Your task to perform on an android device: toggle notification dots Image 0: 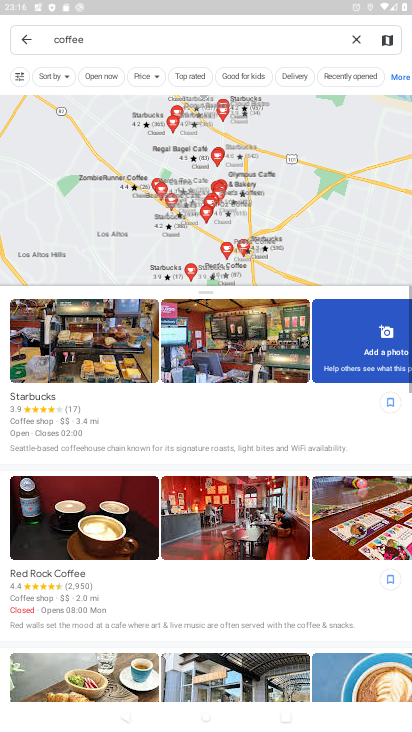
Step 0: drag from (212, 645) to (306, 238)
Your task to perform on an android device: toggle notification dots Image 1: 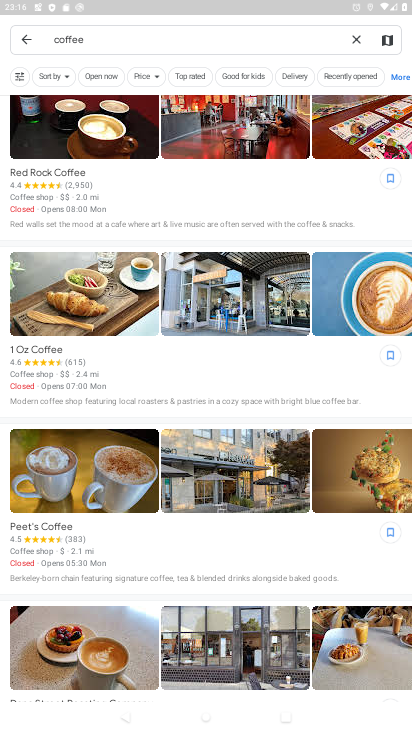
Step 1: press home button
Your task to perform on an android device: toggle notification dots Image 2: 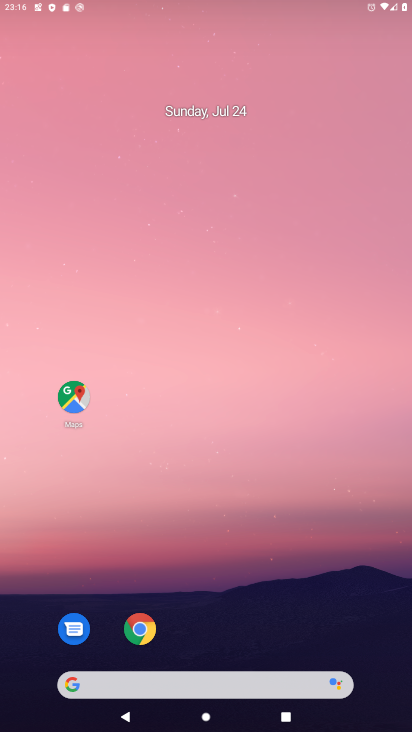
Step 2: drag from (242, 647) to (364, 136)
Your task to perform on an android device: toggle notification dots Image 3: 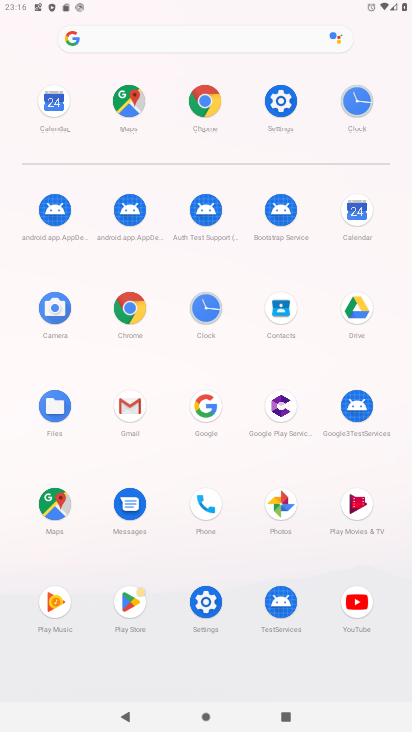
Step 3: click (278, 98)
Your task to perform on an android device: toggle notification dots Image 4: 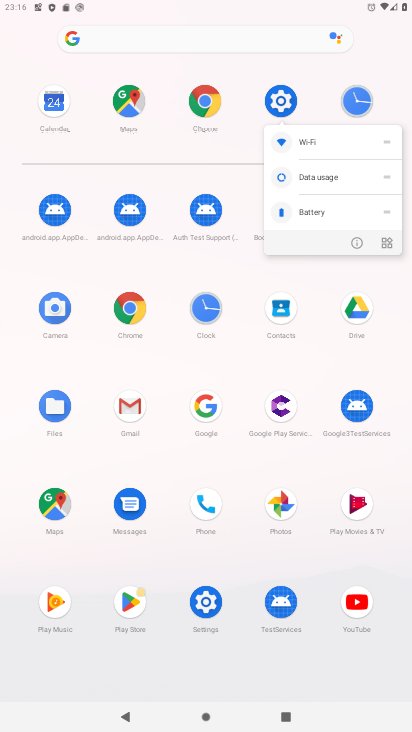
Step 4: click (352, 236)
Your task to perform on an android device: toggle notification dots Image 5: 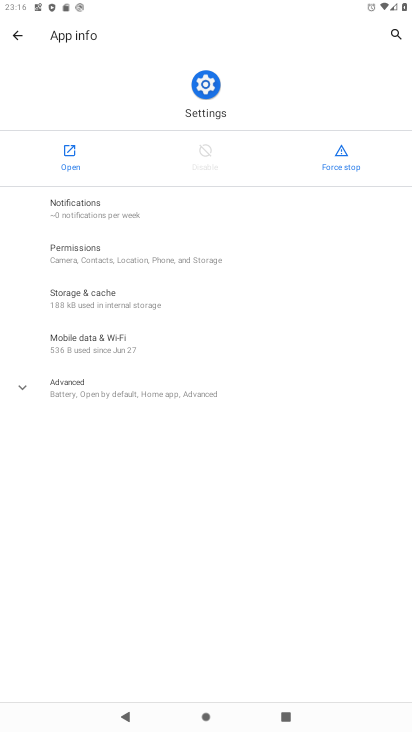
Step 5: click (68, 164)
Your task to perform on an android device: toggle notification dots Image 6: 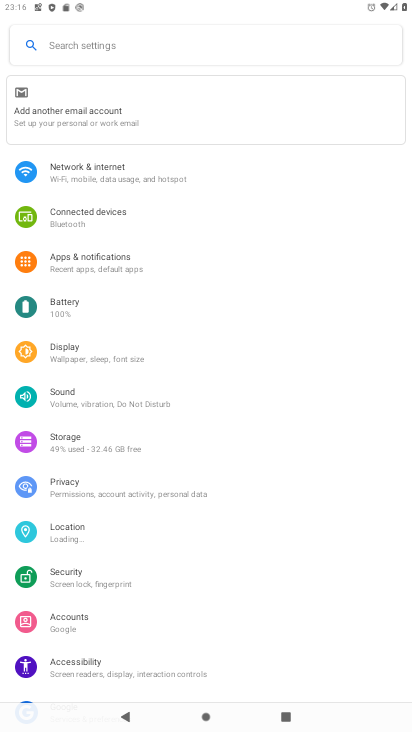
Step 6: click (128, 269)
Your task to perform on an android device: toggle notification dots Image 7: 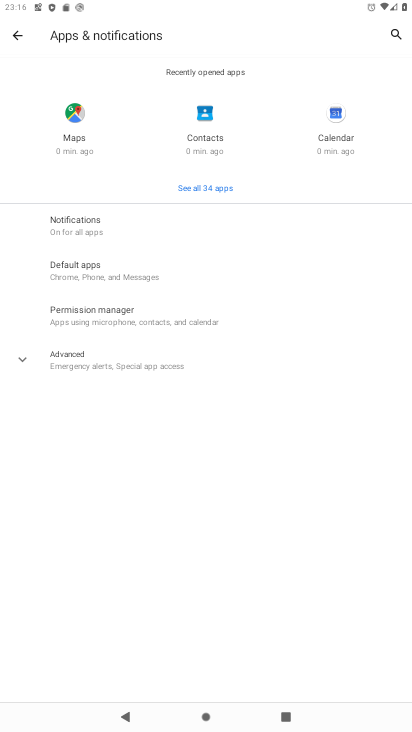
Step 7: click (105, 231)
Your task to perform on an android device: toggle notification dots Image 8: 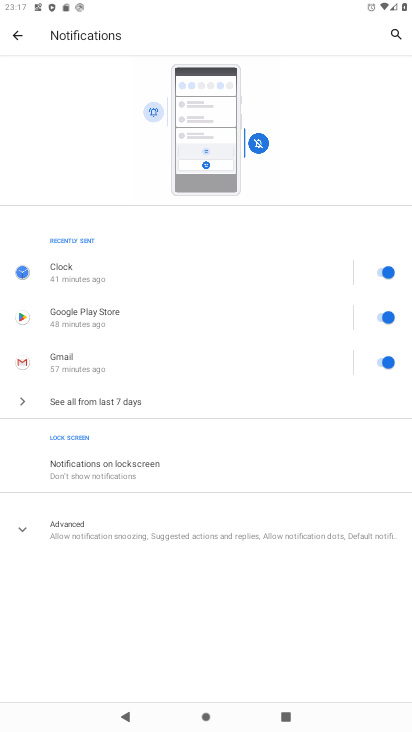
Step 8: click (92, 524)
Your task to perform on an android device: toggle notification dots Image 9: 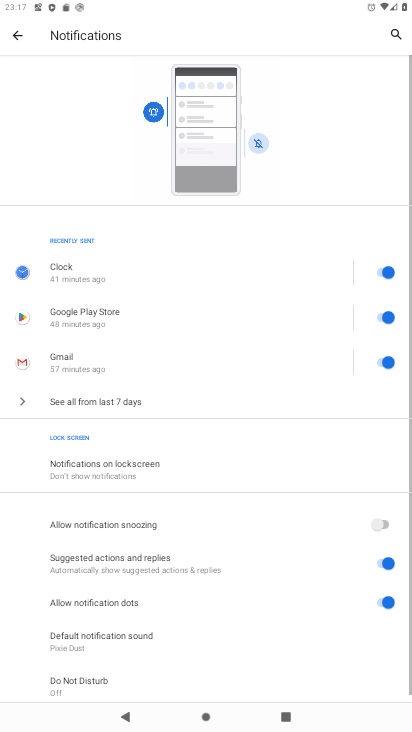
Step 9: drag from (131, 580) to (253, 277)
Your task to perform on an android device: toggle notification dots Image 10: 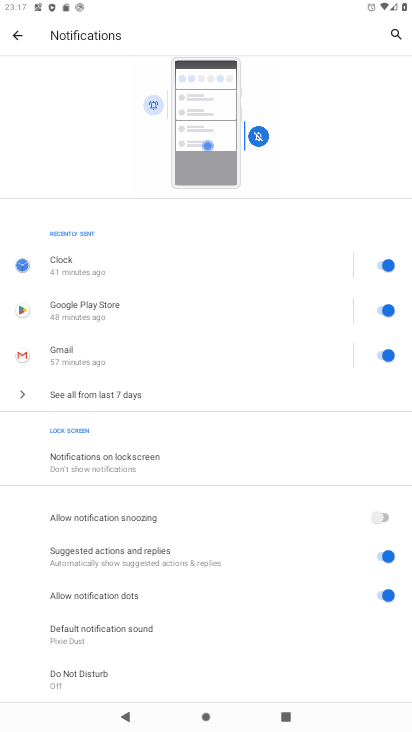
Step 10: click (384, 588)
Your task to perform on an android device: toggle notification dots Image 11: 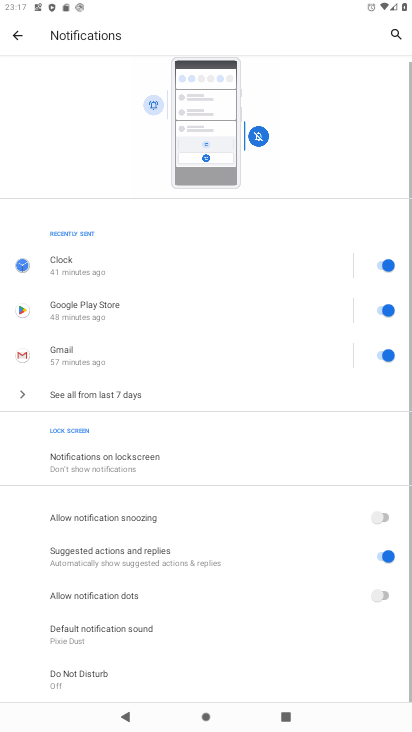
Step 11: task complete